Your task to perform on an android device: Show me productivity apps on the Play Store Image 0: 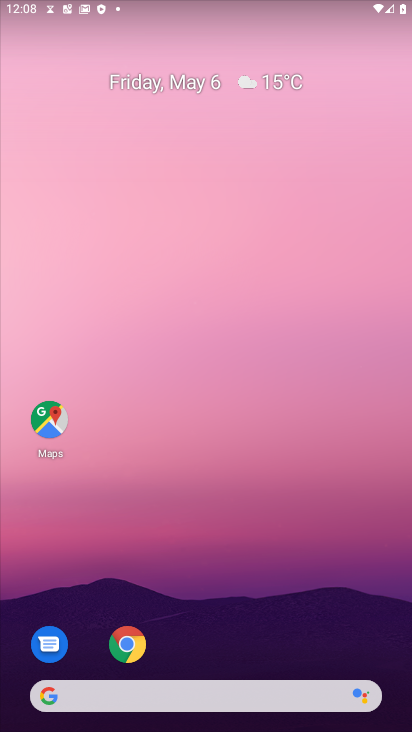
Step 0: drag from (263, 570) to (117, 2)
Your task to perform on an android device: Show me productivity apps on the Play Store Image 1: 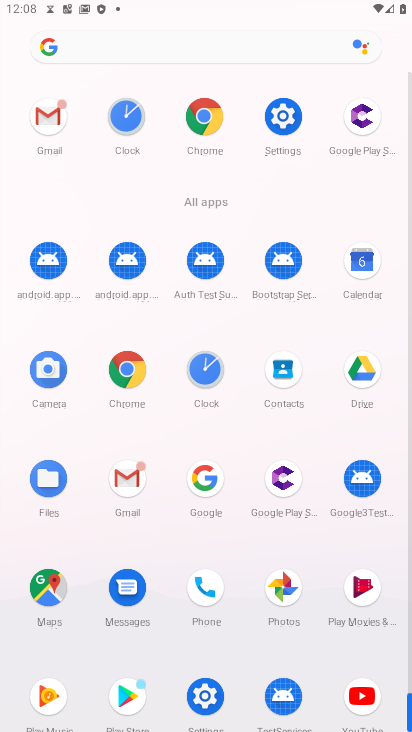
Step 1: drag from (8, 557) to (0, 221)
Your task to perform on an android device: Show me productivity apps on the Play Store Image 2: 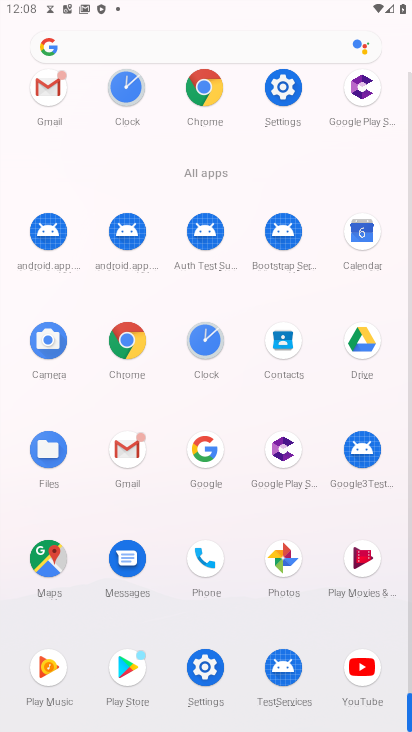
Step 2: click (130, 667)
Your task to perform on an android device: Show me productivity apps on the Play Store Image 3: 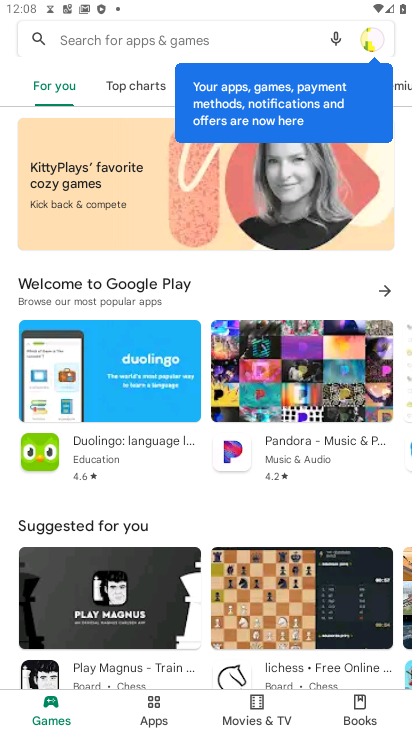
Step 3: click (152, 701)
Your task to perform on an android device: Show me productivity apps on the Play Store Image 4: 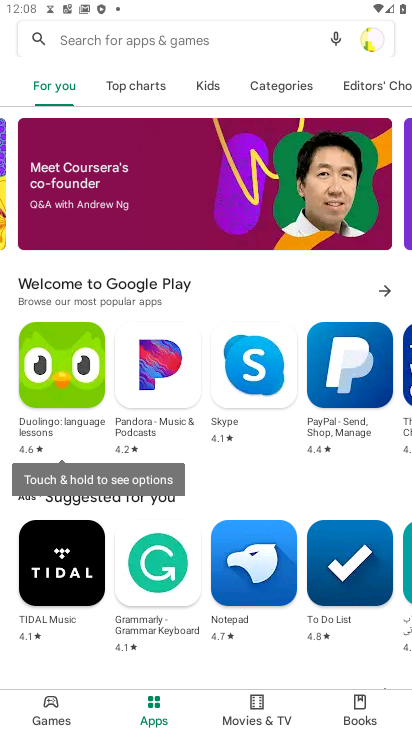
Step 4: click (276, 85)
Your task to perform on an android device: Show me productivity apps on the Play Store Image 5: 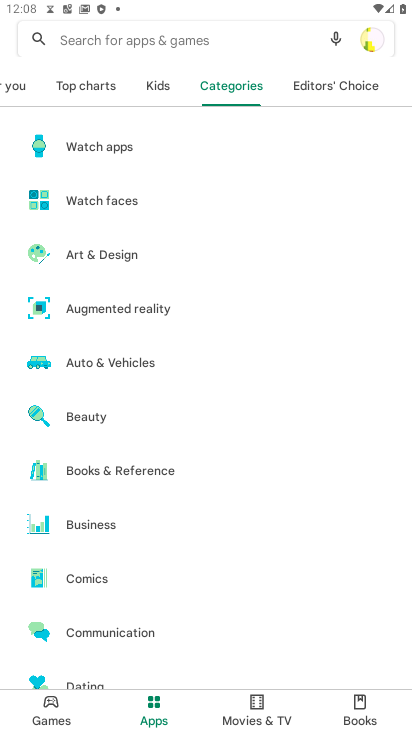
Step 5: drag from (216, 585) to (217, 113)
Your task to perform on an android device: Show me productivity apps on the Play Store Image 6: 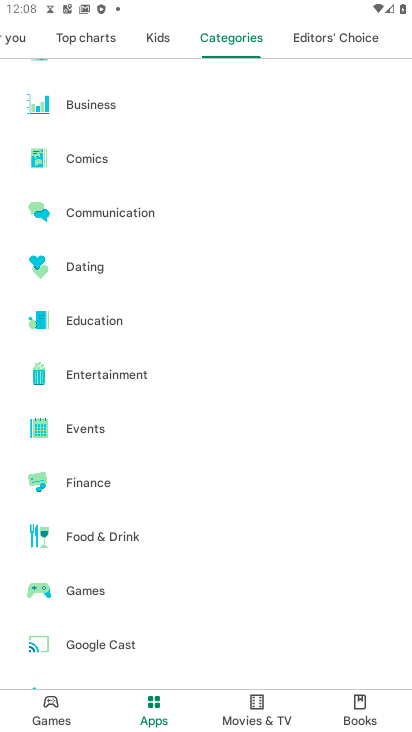
Step 6: drag from (134, 561) to (172, 67)
Your task to perform on an android device: Show me productivity apps on the Play Store Image 7: 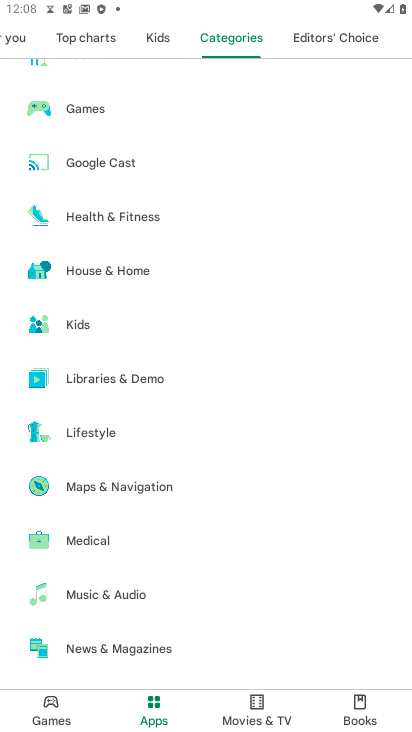
Step 7: drag from (199, 545) to (240, 66)
Your task to perform on an android device: Show me productivity apps on the Play Store Image 8: 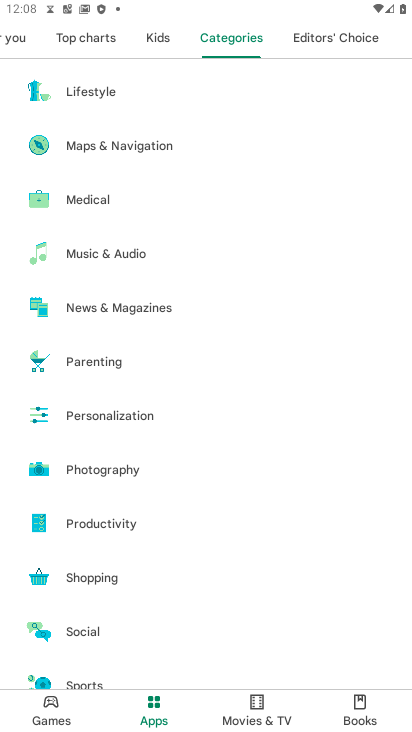
Step 8: drag from (182, 591) to (191, 498)
Your task to perform on an android device: Show me productivity apps on the Play Store Image 9: 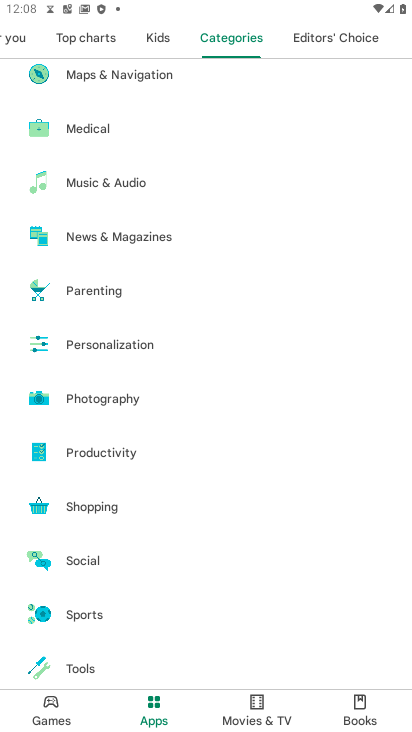
Step 9: click (127, 450)
Your task to perform on an android device: Show me productivity apps on the Play Store Image 10: 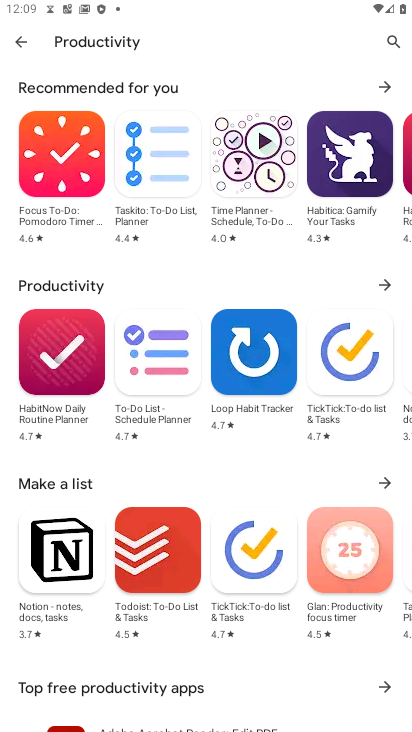
Step 10: task complete